Your task to perform on an android device: change timer sound Image 0: 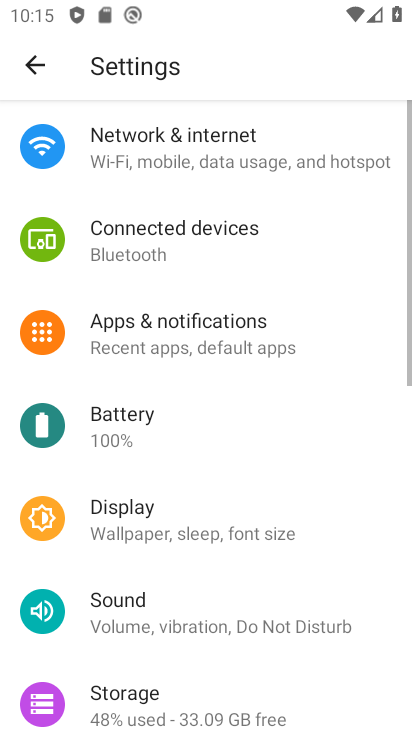
Step 0: press home button
Your task to perform on an android device: change timer sound Image 1: 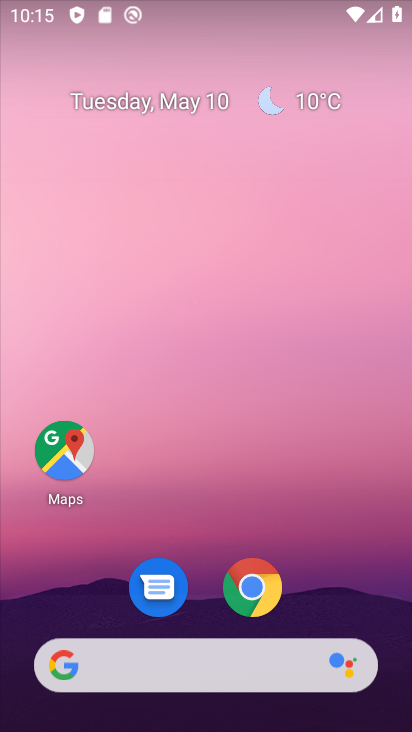
Step 1: drag from (211, 631) to (198, 24)
Your task to perform on an android device: change timer sound Image 2: 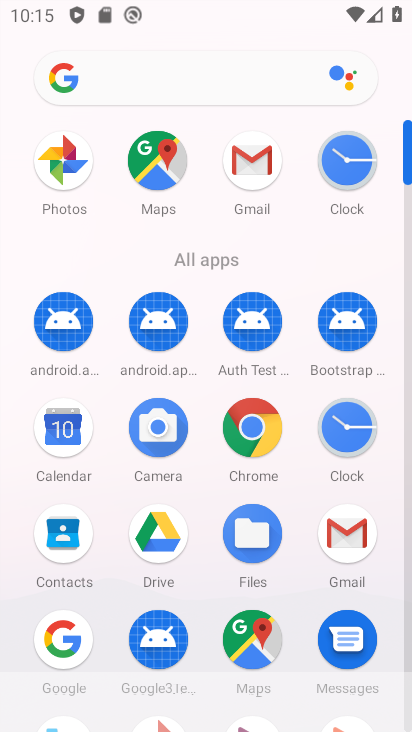
Step 2: click (342, 430)
Your task to perform on an android device: change timer sound Image 3: 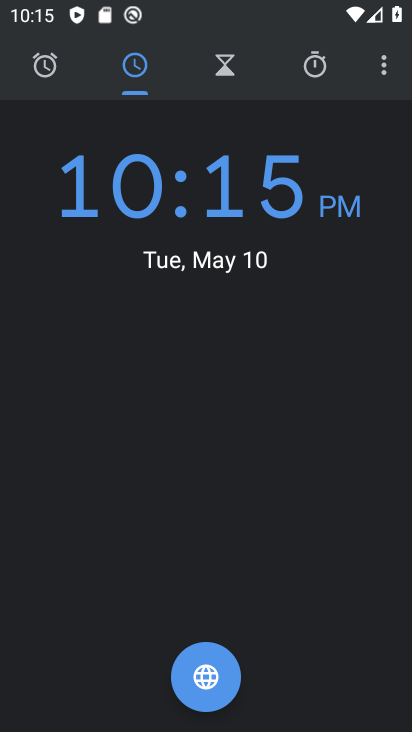
Step 3: click (381, 64)
Your task to perform on an android device: change timer sound Image 4: 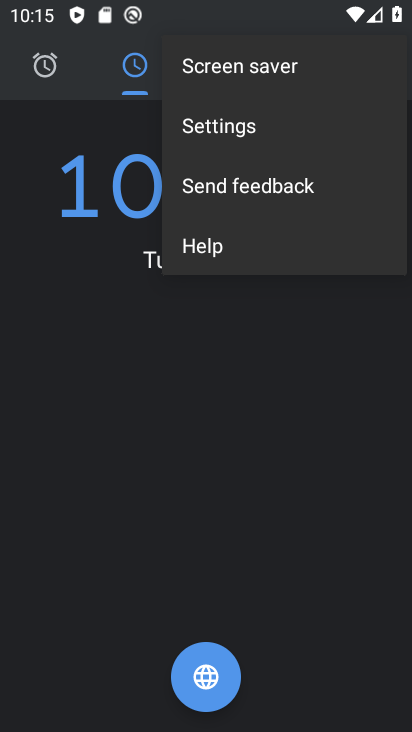
Step 4: click (221, 138)
Your task to perform on an android device: change timer sound Image 5: 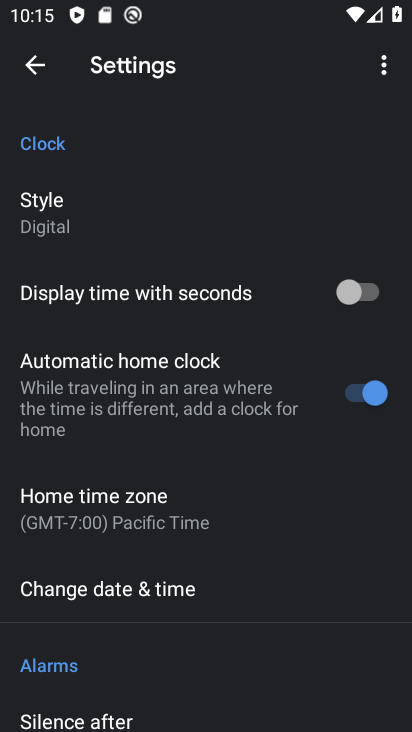
Step 5: drag from (166, 568) to (151, 77)
Your task to perform on an android device: change timer sound Image 6: 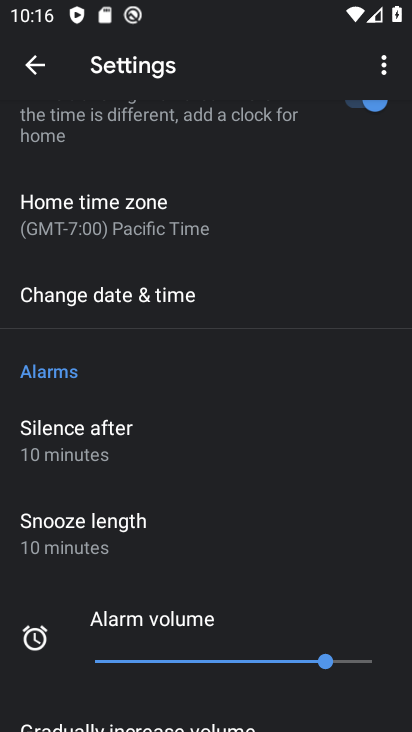
Step 6: drag from (143, 592) to (106, 34)
Your task to perform on an android device: change timer sound Image 7: 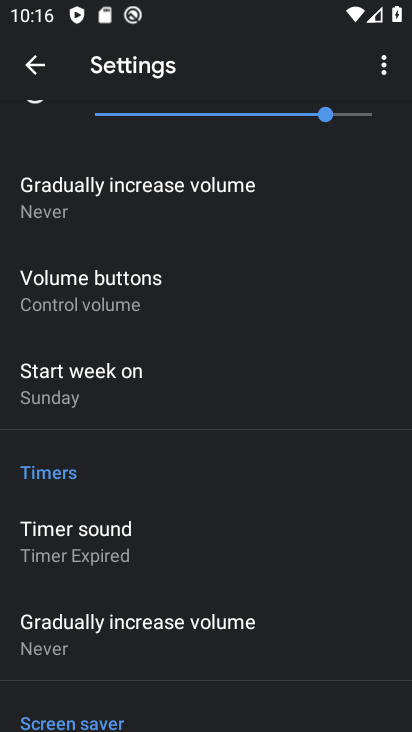
Step 7: click (148, 555)
Your task to perform on an android device: change timer sound Image 8: 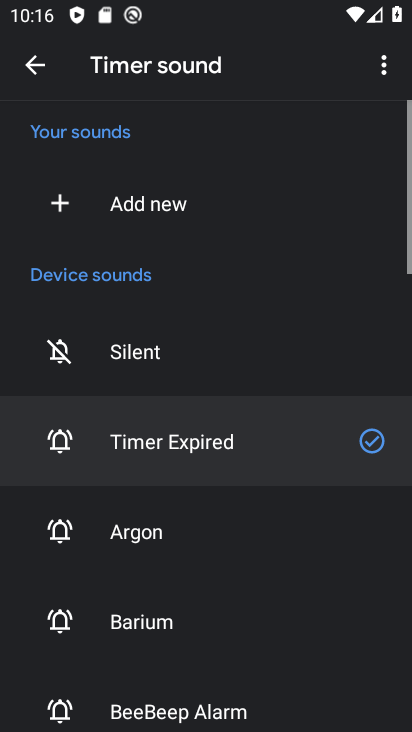
Step 8: click (126, 510)
Your task to perform on an android device: change timer sound Image 9: 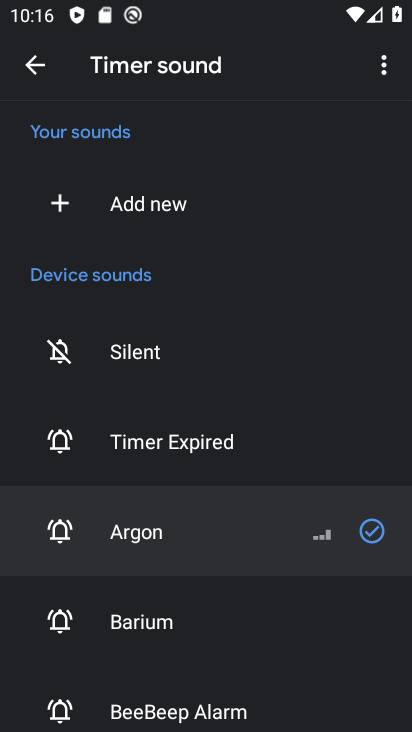
Step 9: task complete